Your task to perform on an android device: turn pop-ups on in chrome Image 0: 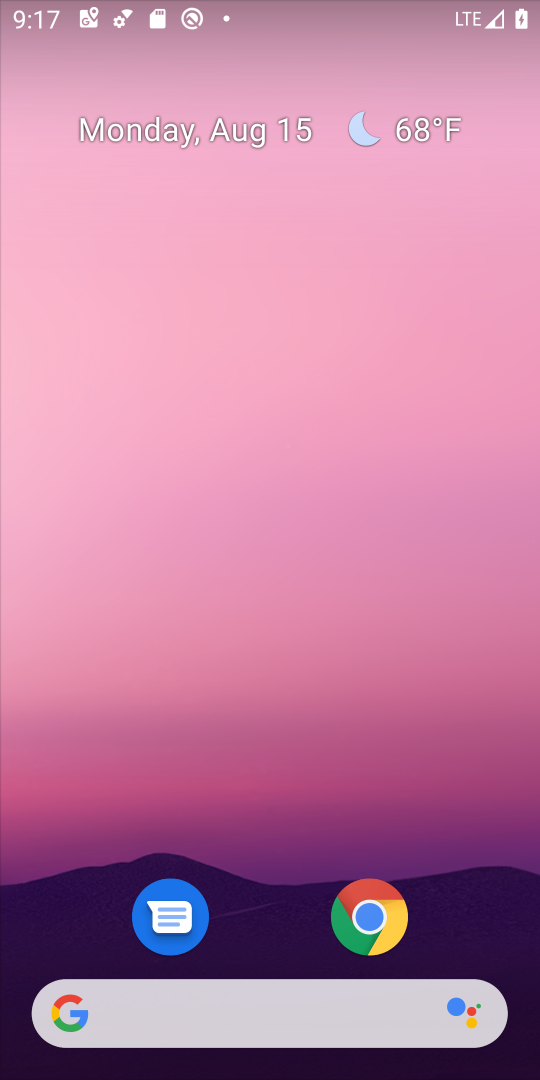
Step 0: click (382, 902)
Your task to perform on an android device: turn pop-ups on in chrome Image 1: 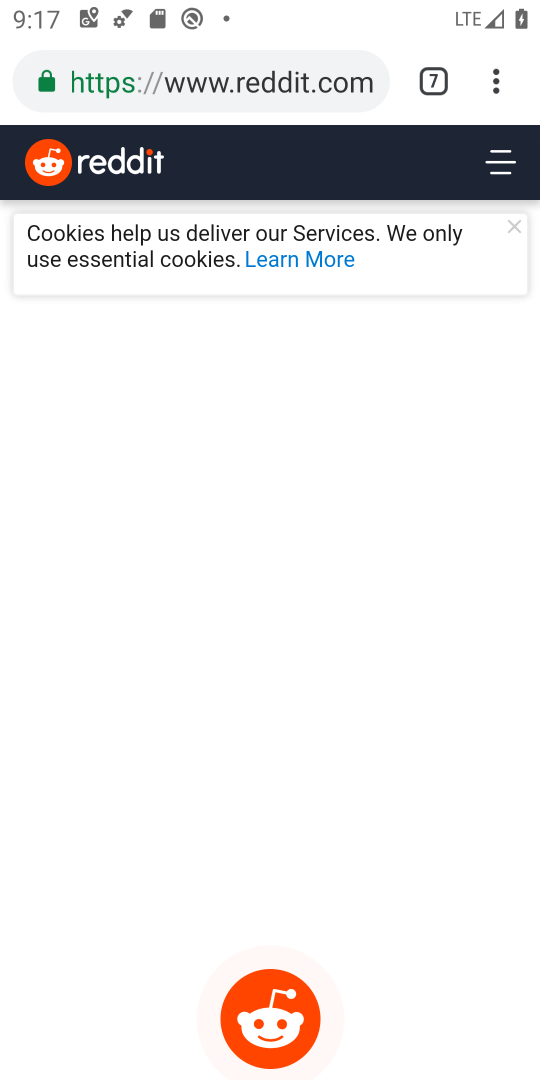
Step 1: press back button
Your task to perform on an android device: turn pop-ups on in chrome Image 2: 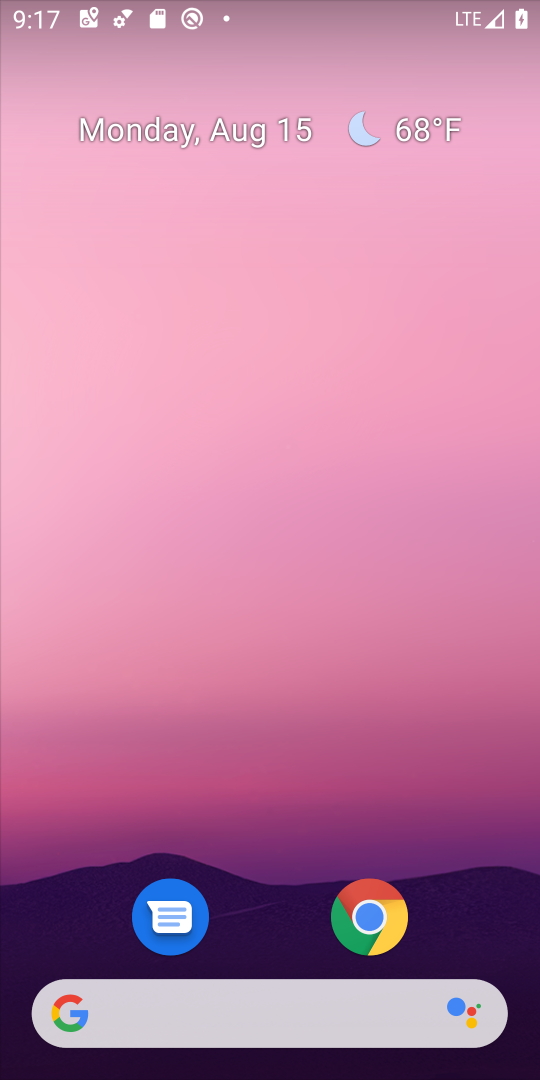
Step 2: click (382, 910)
Your task to perform on an android device: turn pop-ups on in chrome Image 3: 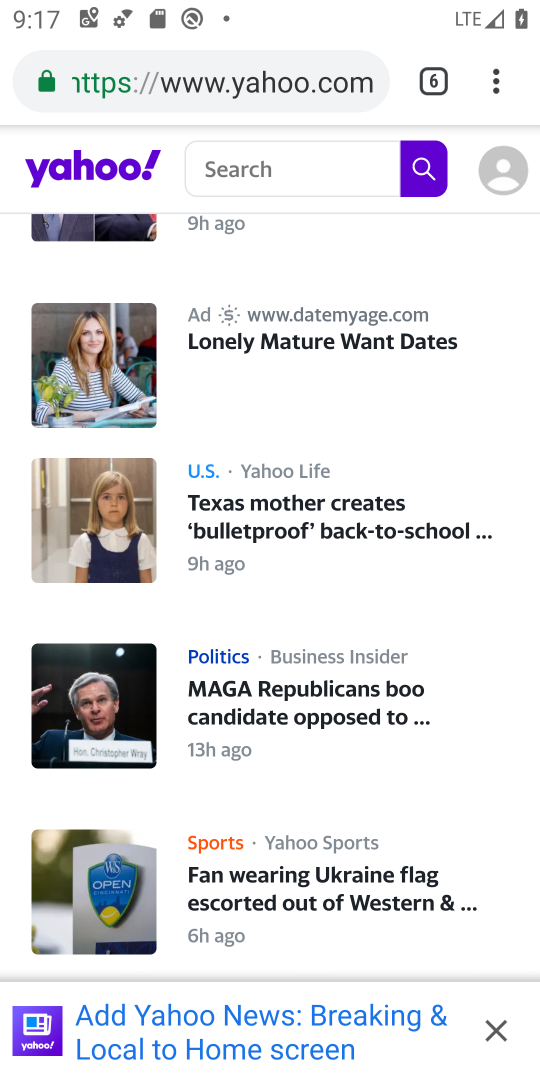
Step 3: press home button
Your task to perform on an android device: turn pop-ups on in chrome Image 4: 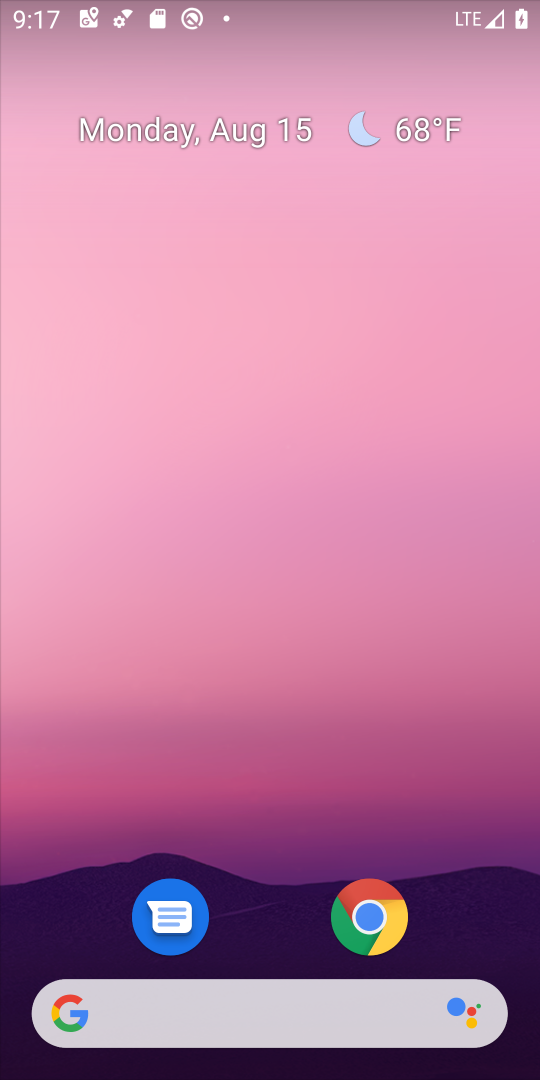
Step 4: click (375, 902)
Your task to perform on an android device: turn pop-ups on in chrome Image 5: 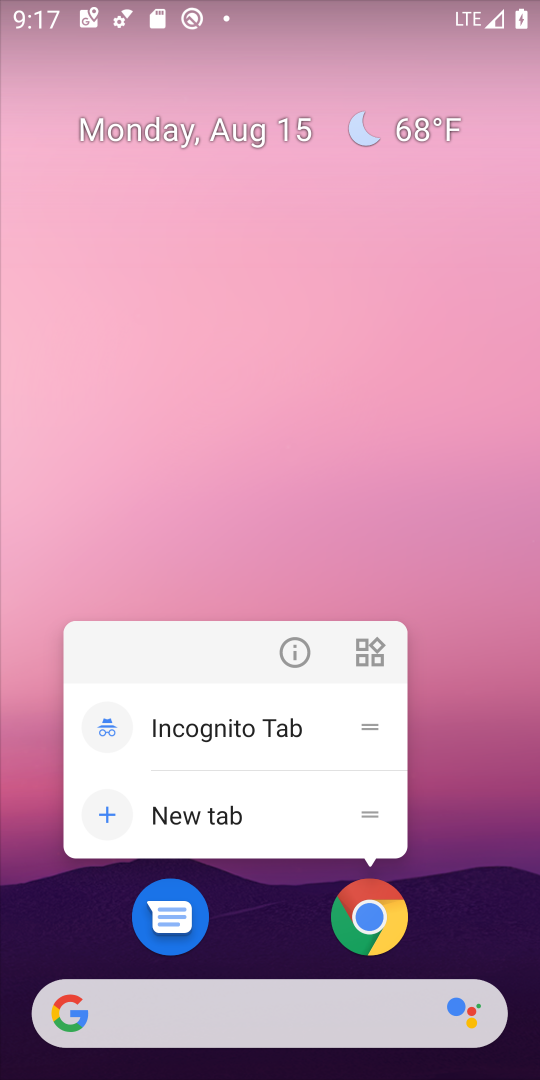
Step 5: click (352, 919)
Your task to perform on an android device: turn pop-ups on in chrome Image 6: 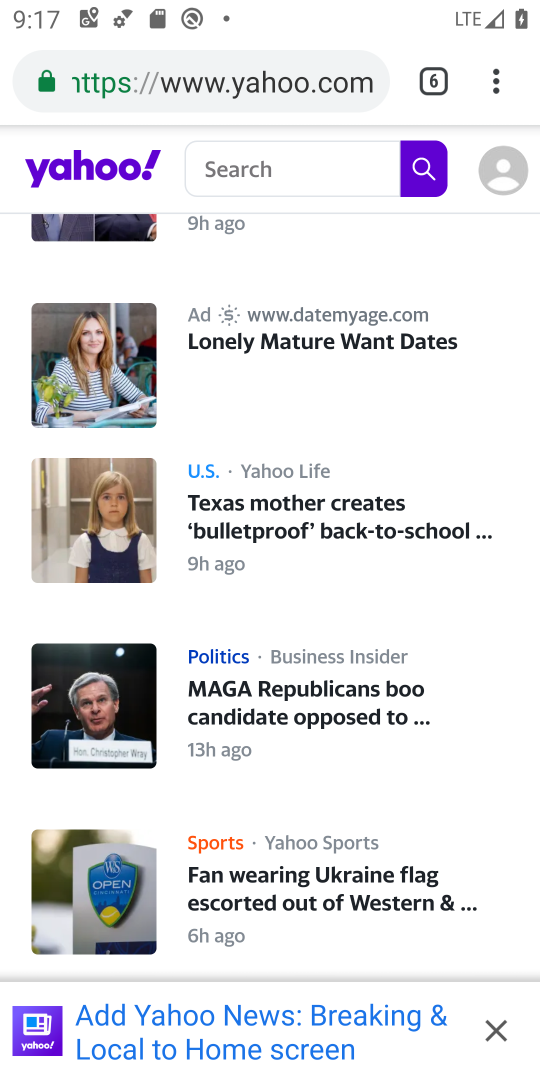
Step 6: click (498, 88)
Your task to perform on an android device: turn pop-ups on in chrome Image 7: 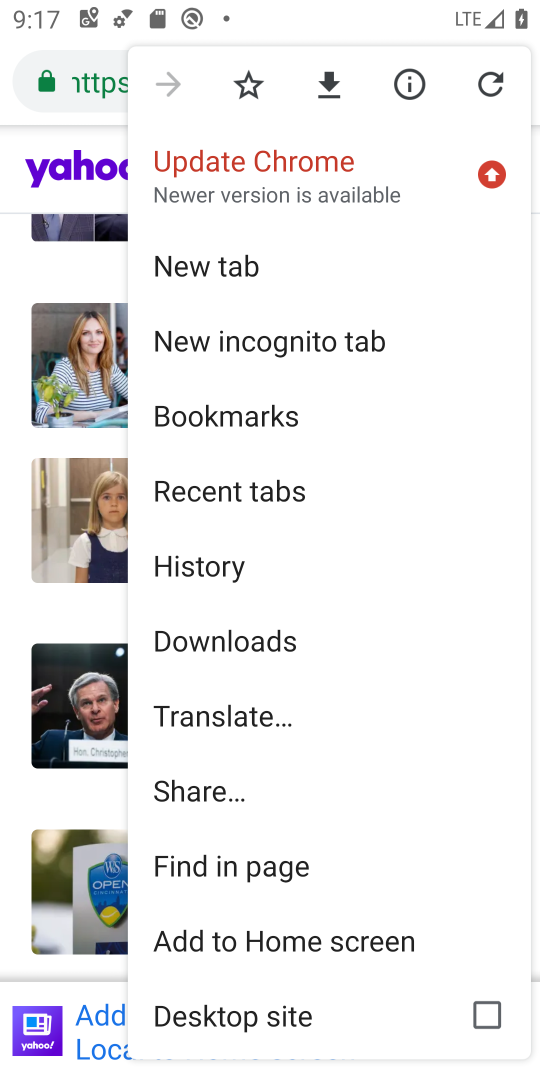
Step 7: drag from (357, 796) to (339, 118)
Your task to perform on an android device: turn pop-ups on in chrome Image 8: 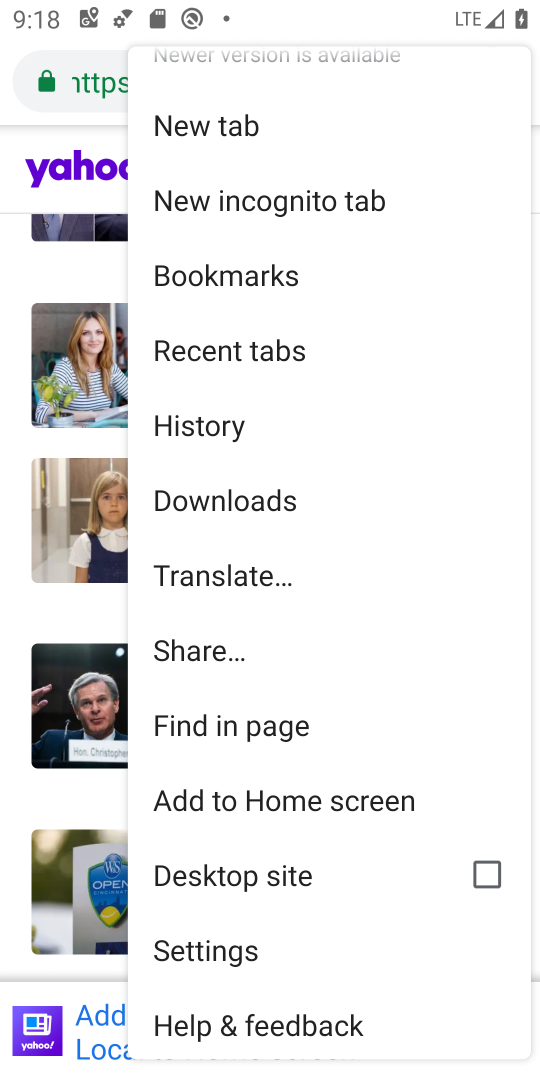
Step 8: click (263, 940)
Your task to perform on an android device: turn pop-ups on in chrome Image 9: 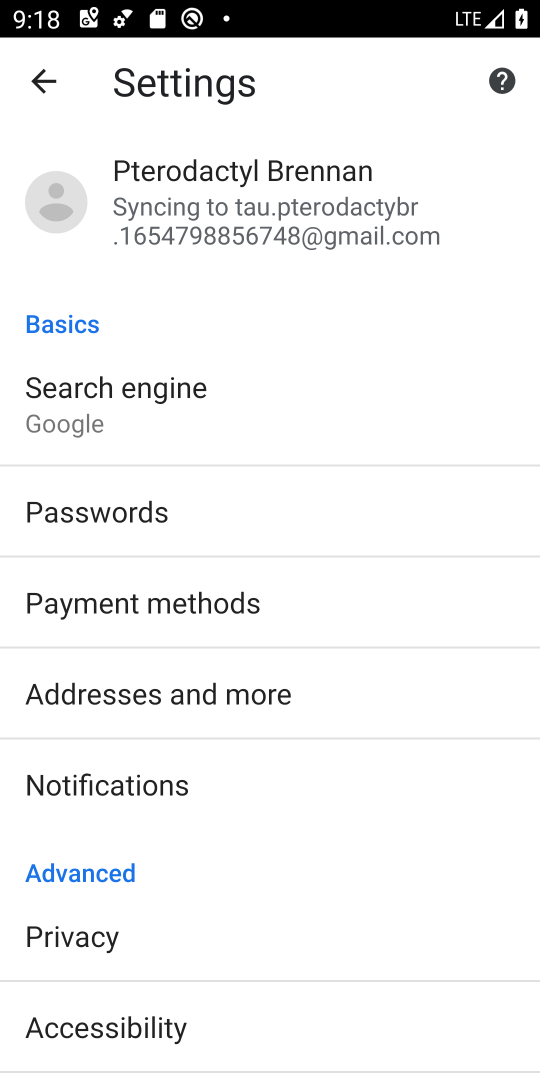
Step 9: drag from (261, 837) to (243, 184)
Your task to perform on an android device: turn pop-ups on in chrome Image 10: 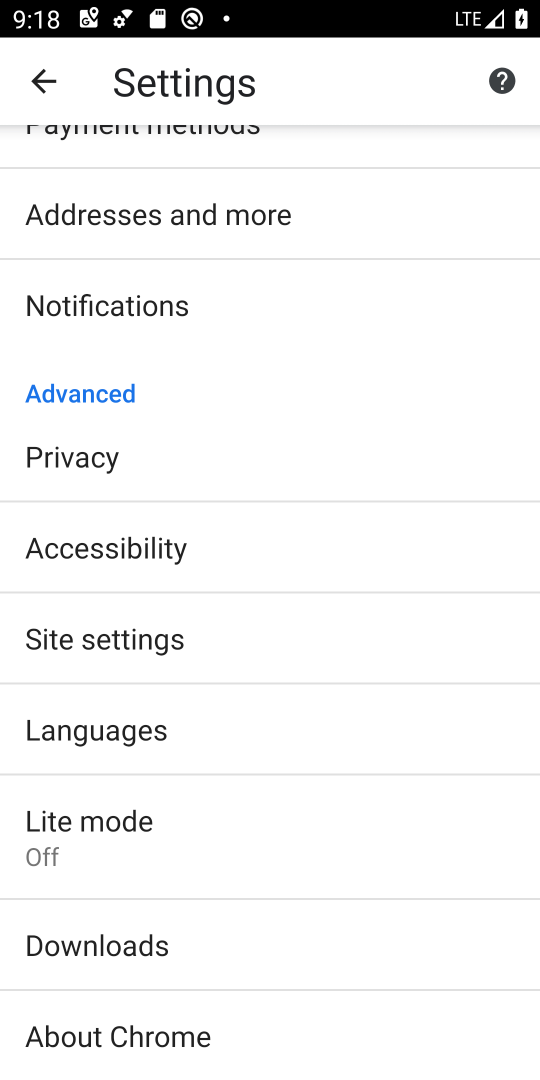
Step 10: click (206, 648)
Your task to perform on an android device: turn pop-ups on in chrome Image 11: 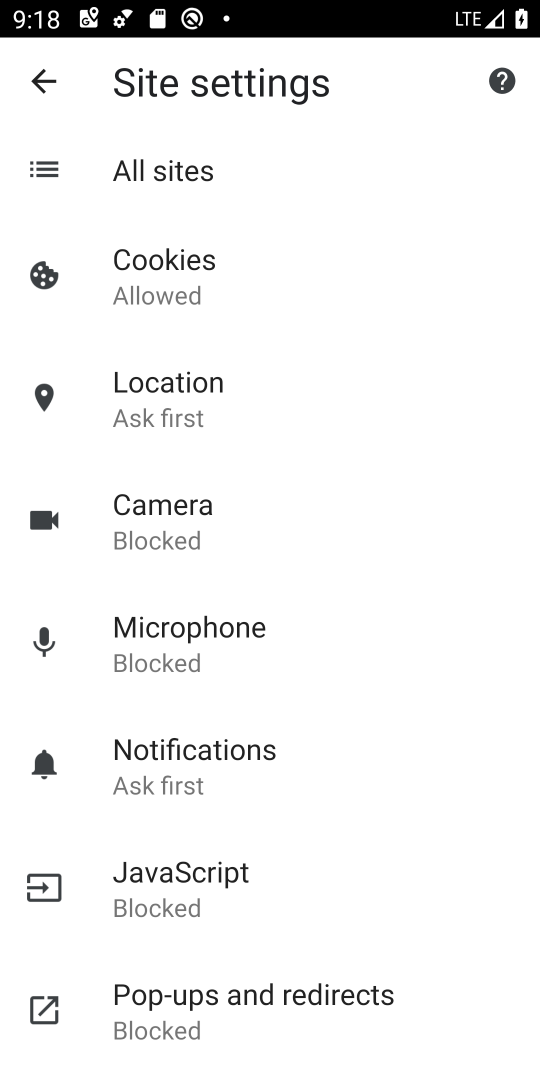
Step 11: click (264, 999)
Your task to perform on an android device: turn pop-ups on in chrome Image 12: 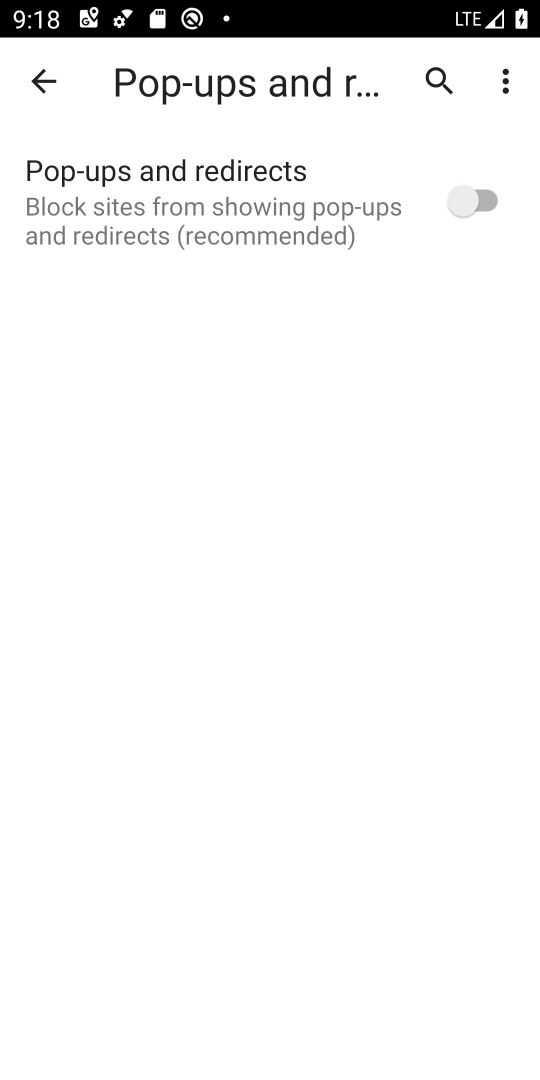
Step 12: click (467, 187)
Your task to perform on an android device: turn pop-ups on in chrome Image 13: 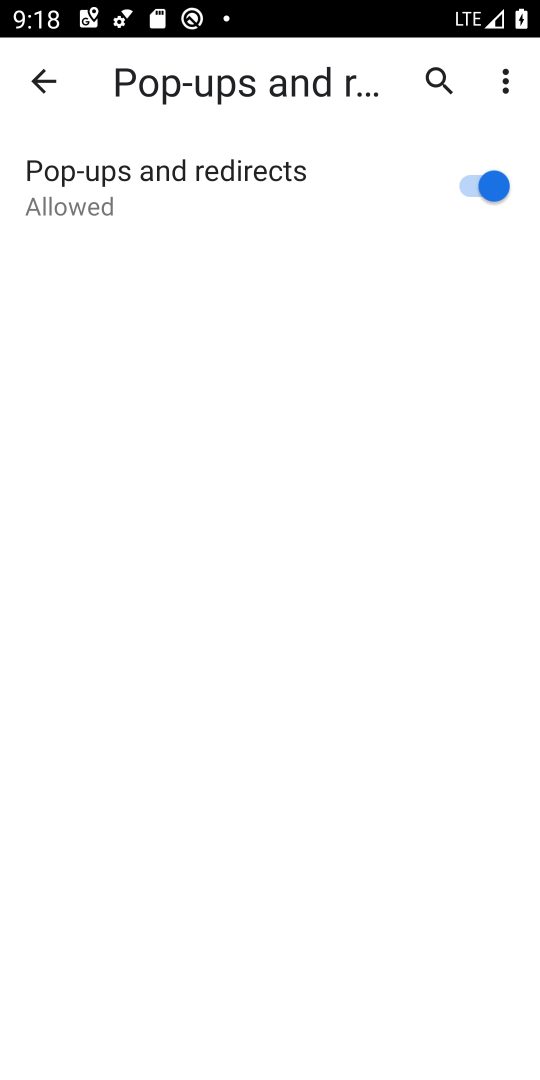
Step 13: task complete